Your task to perform on an android device: Go to network settings Image 0: 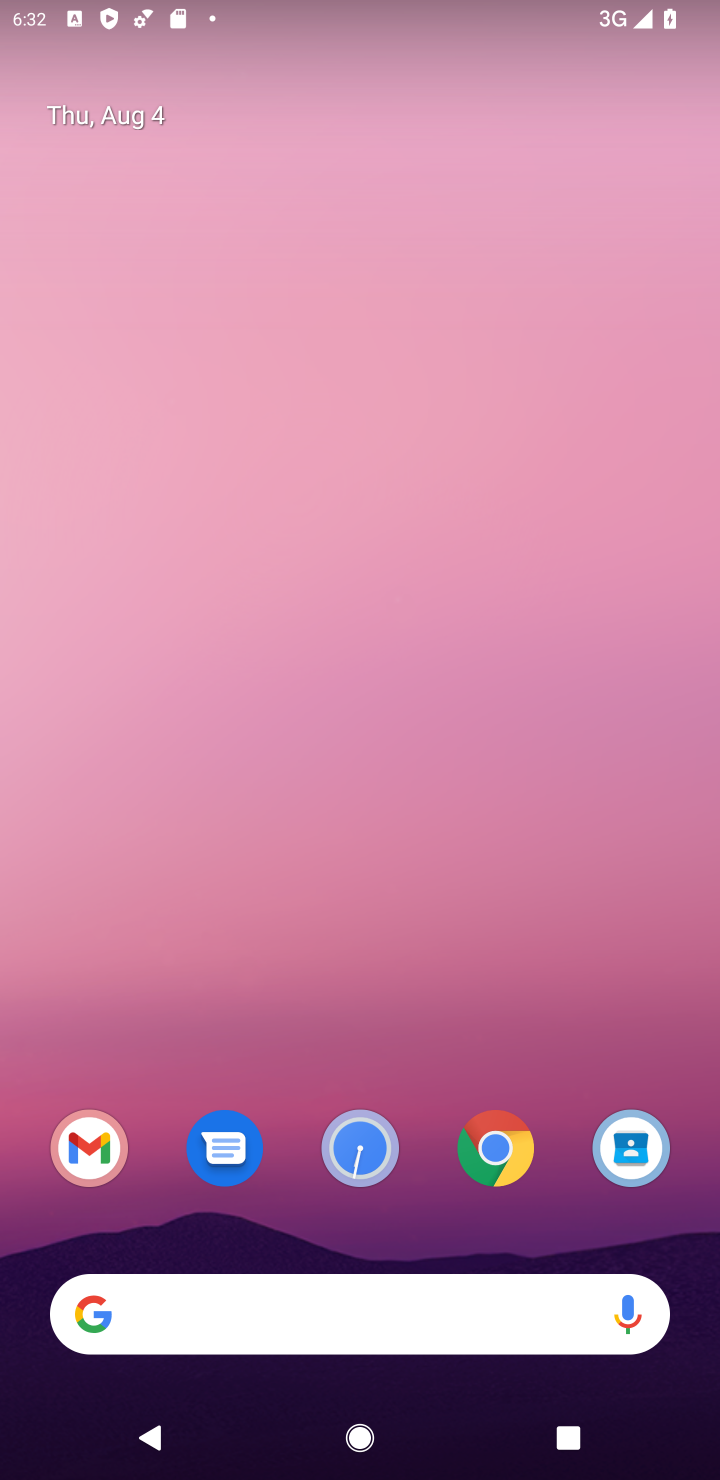
Step 0: drag from (534, 819) to (485, 293)
Your task to perform on an android device: Go to network settings Image 1: 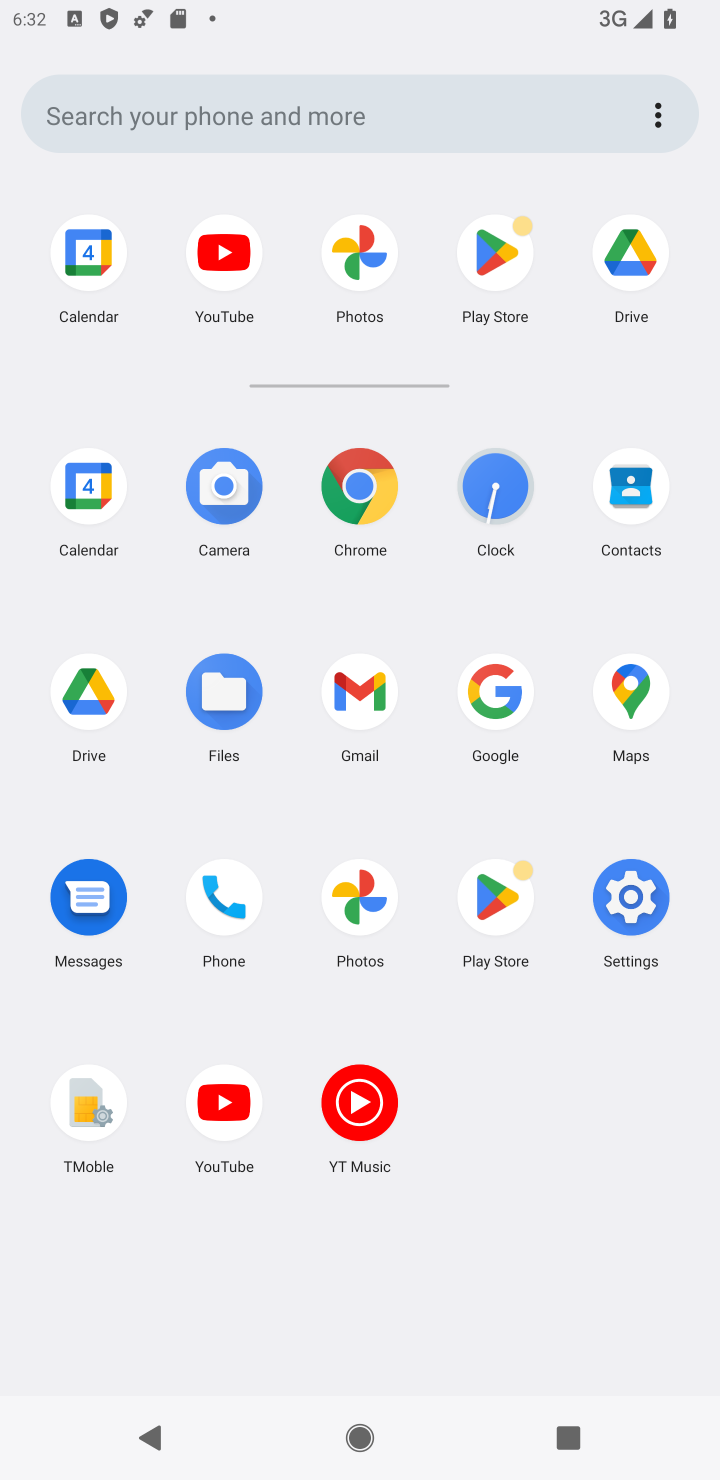
Step 1: click (631, 897)
Your task to perform on an android device: Go to network settings Image 2: 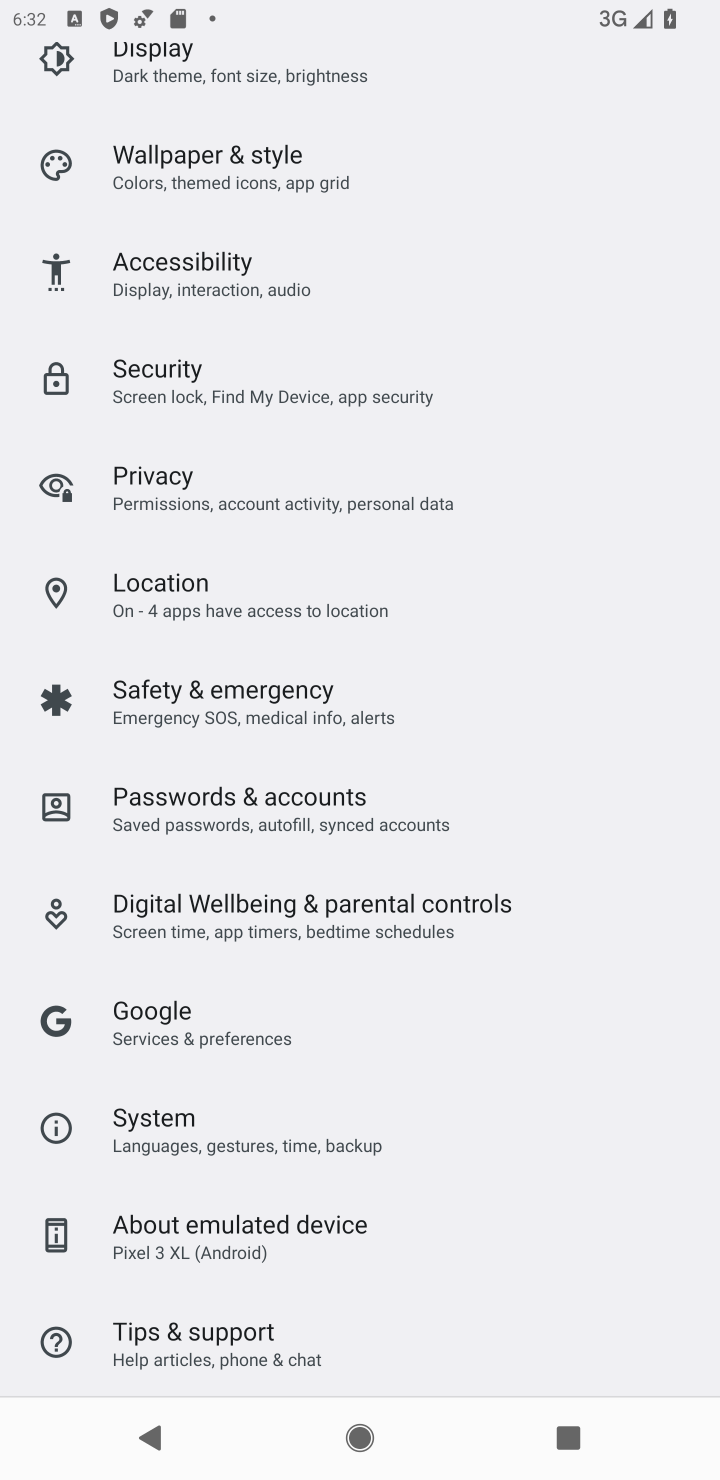
Step 2: drag from (527, 384) to (505, 1049)
Your task to perform on an android device: Go to network settings Image 3: 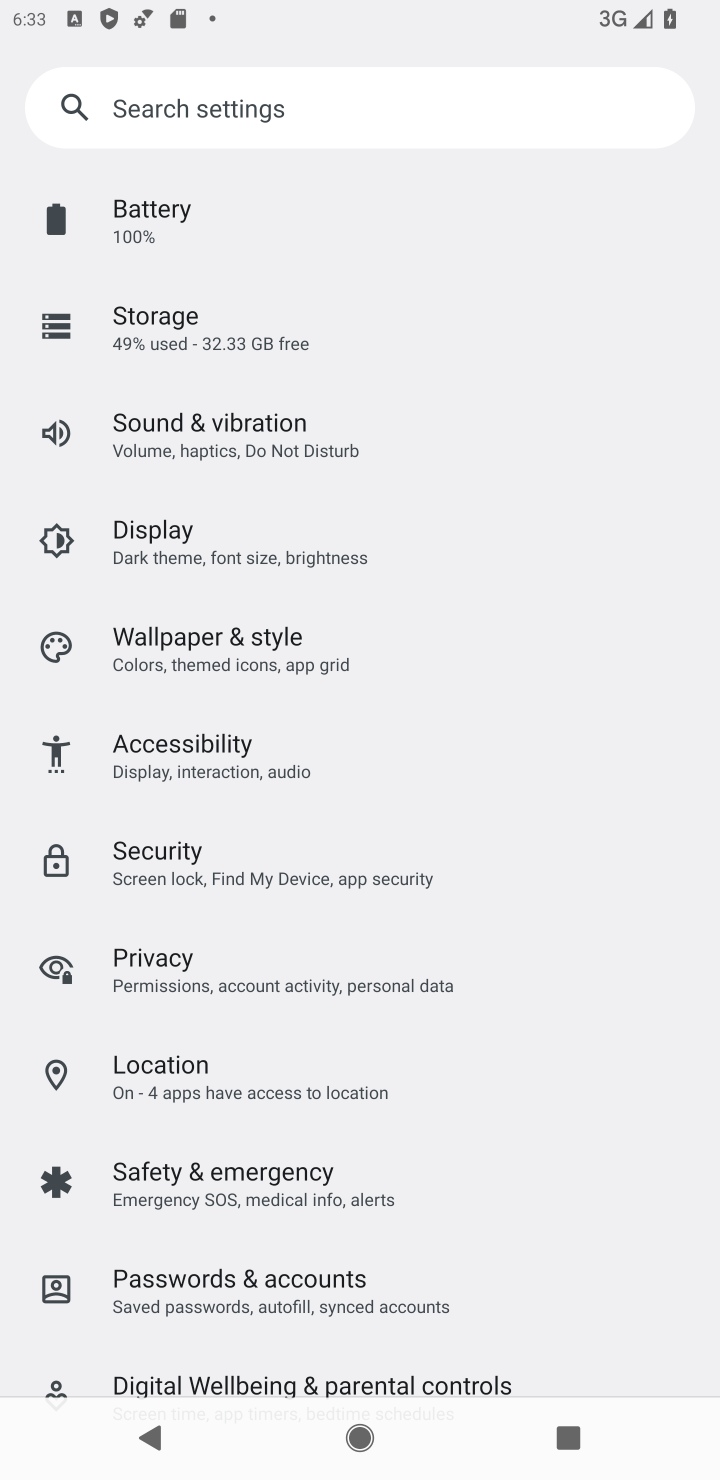
Step 3: drag from (434, 268) to (434, 1137)
Your task to perform on an android device: Go to network settings Image 4: 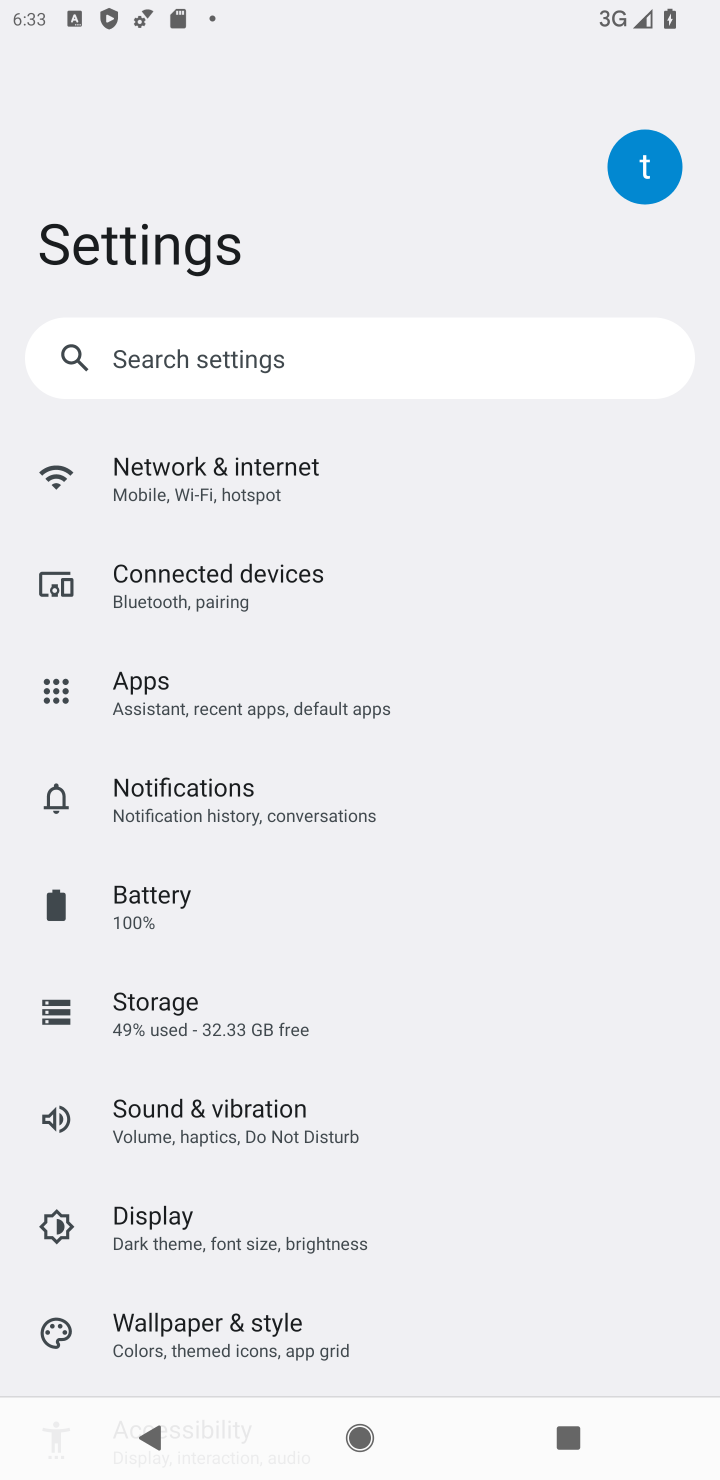
Step 4: click (156, 476)
Your task to perform on an android device: Go to network settings Image 5: 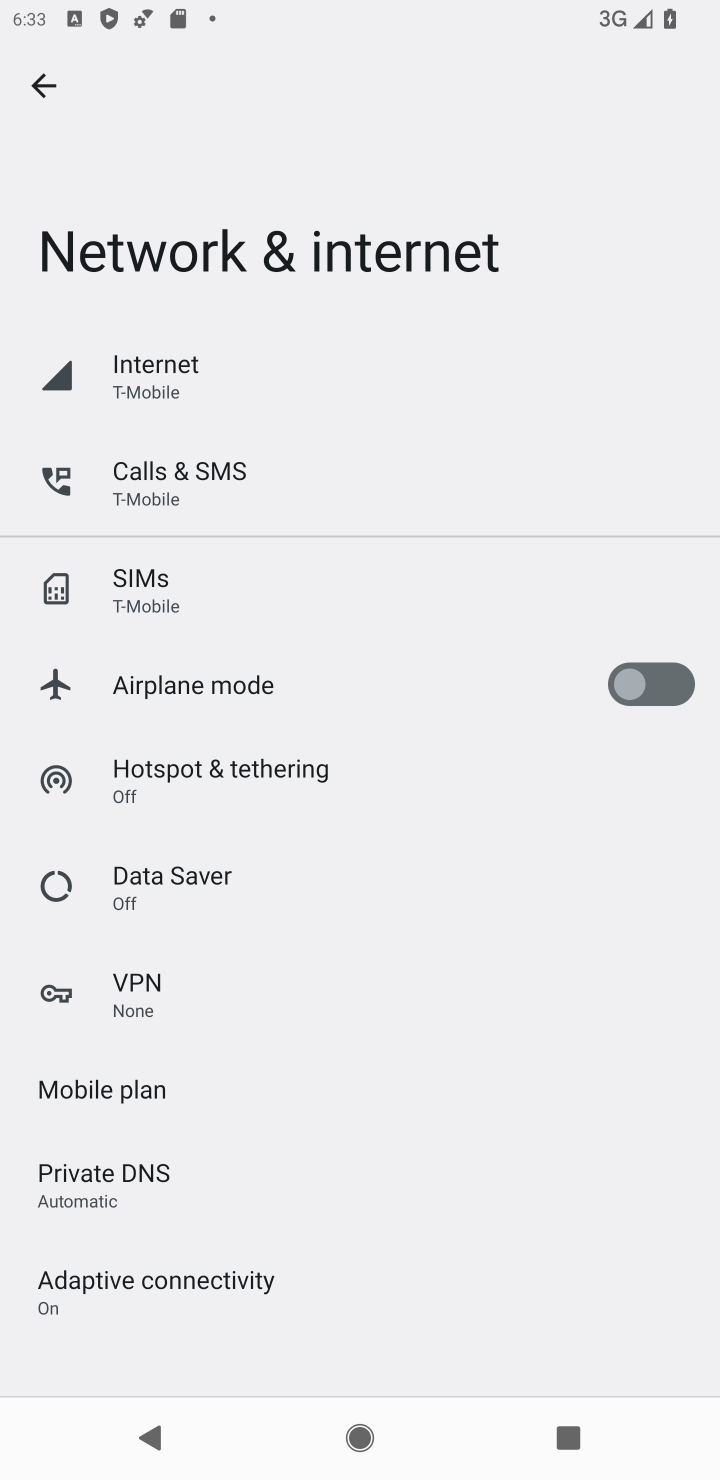
Step 5: click (135, 361)
Your task to perform on an android device: Go to network settings Image 6: 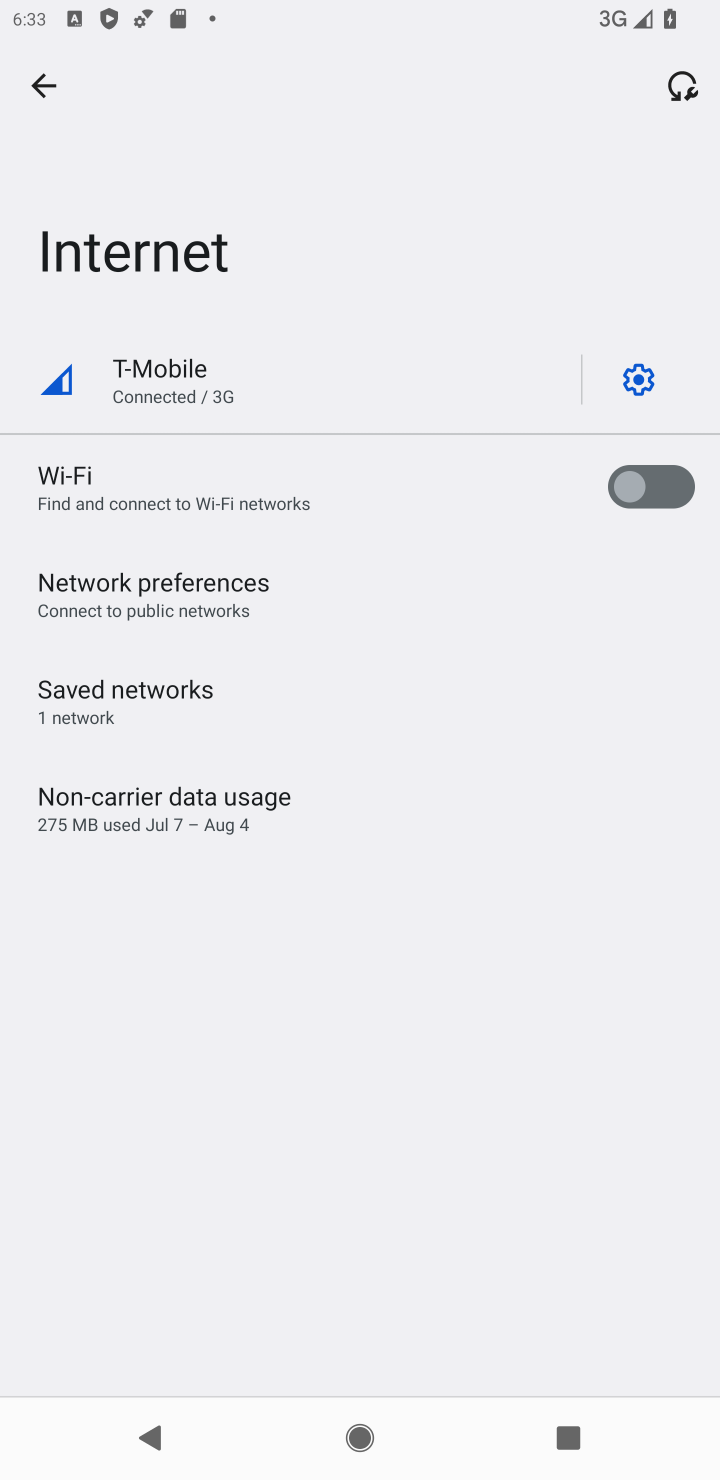
Step 6: click (108, 583)
Your task to perform on an android device: Go to network settings Image 7: 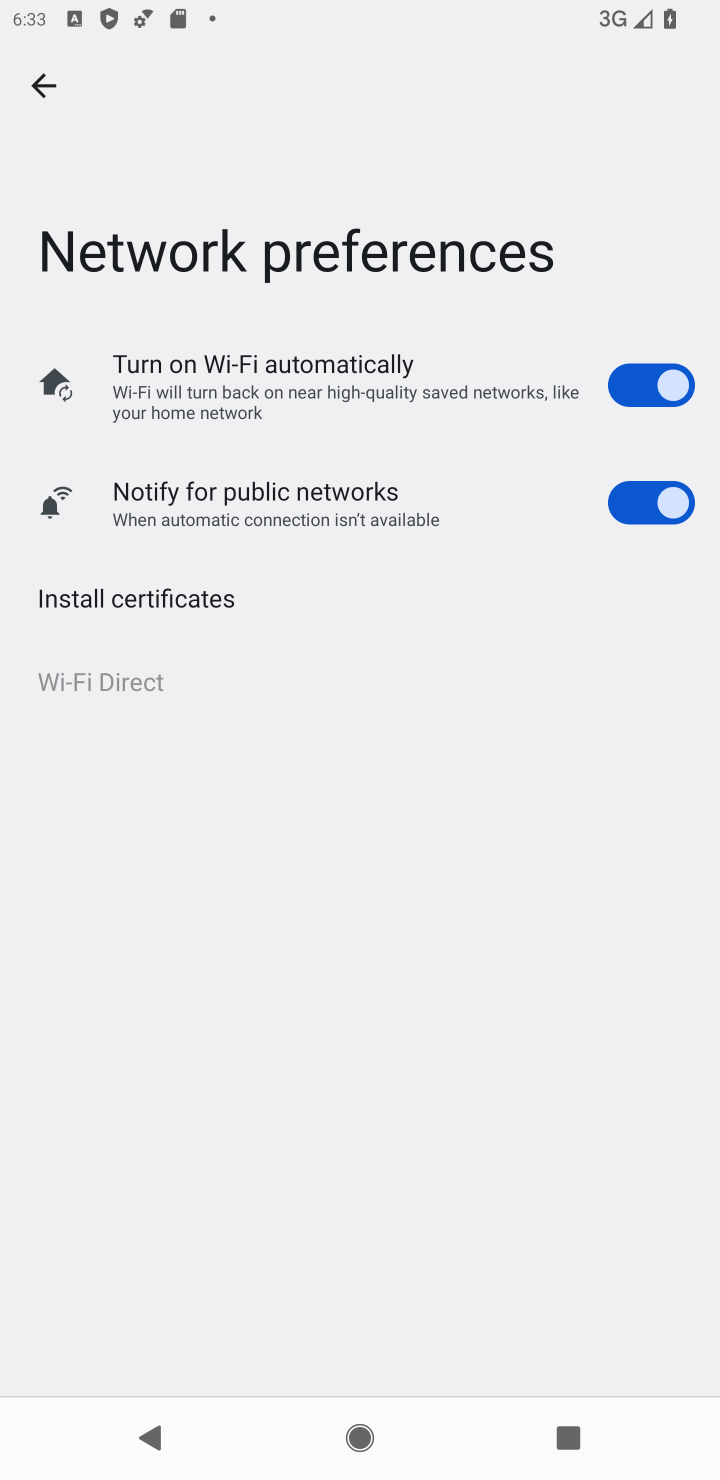
Step 7: task complete